Your task to perform on an android device: Go to Reddit.com Image 0: 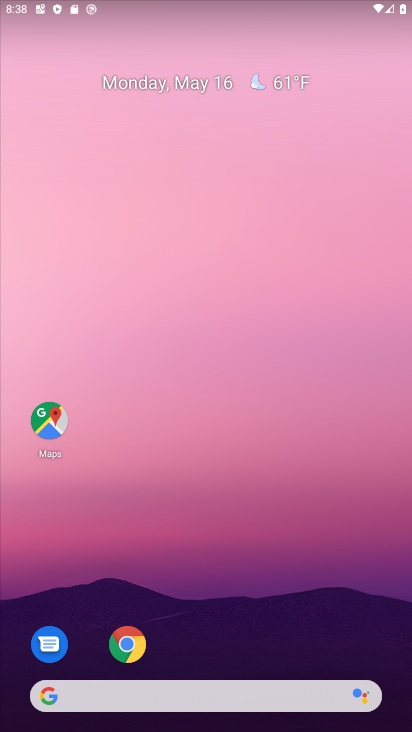
Step 0: drag from (224, 646) to (197, 111)
Your task to perform on an android device: Go to Reddit.com Image 1: 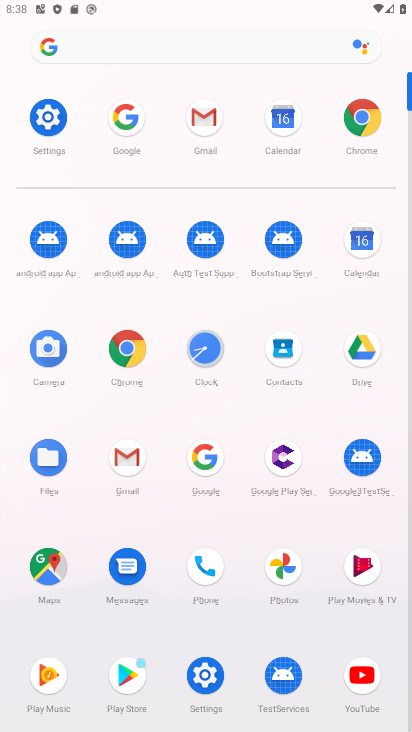
Step 1: click (128, 120)
Your task to perform on an android device: Go to Reddit.com Image 2: 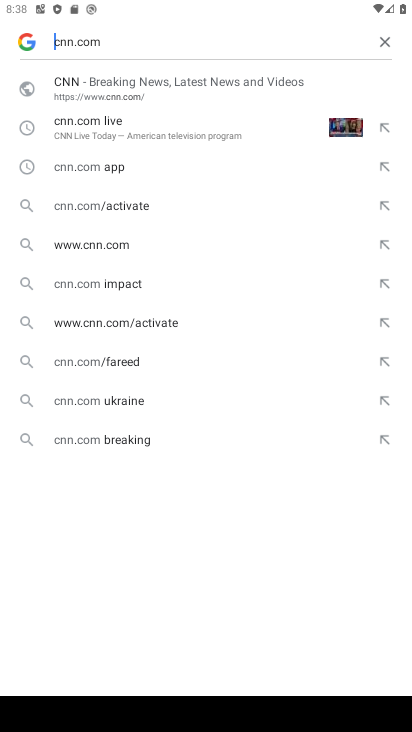
Step 2: click (383, 43)
Your task to perform on an android device: Go to Reddit.com Image 3: 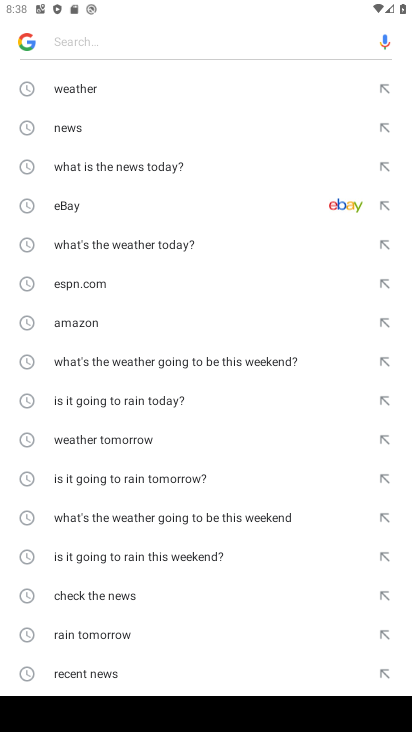
Step 3: drag from (137, 546) to (135, 318)
Your task to perform on an android device: Go to Reddit.com Image 4: 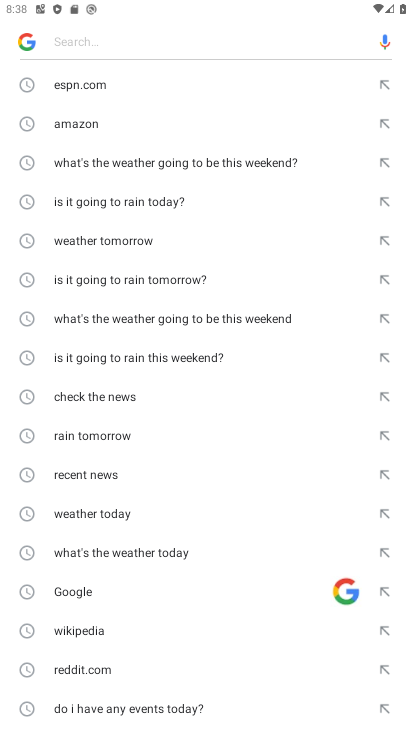
Step 4: click (97, 672)
Your task to perform on an android device: Go to Reddit.com Image 5: 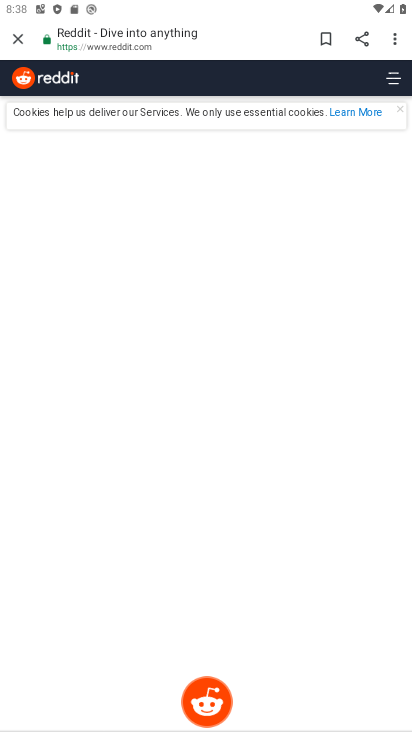
Step 5: task complete